Your task to perform on an android device: open sync settings in chrome Image 0: 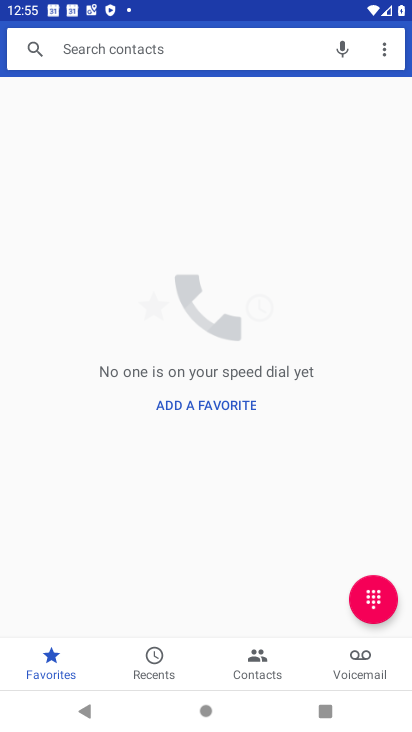
Step 0: press home button
Your task to perform on an android device: open sync settings in chrome Image 1: 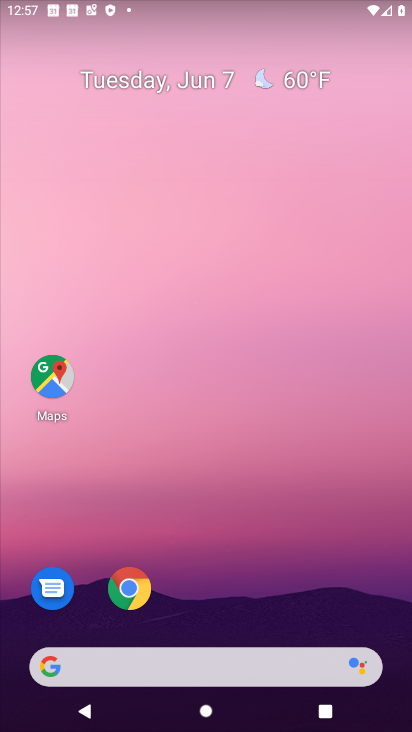
Step 1: click (123, 577)
Your task to perform on an android device: open sync settings in chrome Image 2: 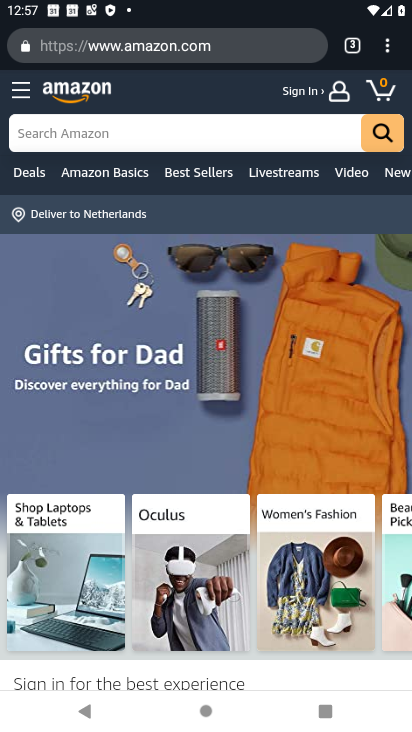
Step 2: click (387, 40)
Your task to perform on an android device: open sync settings in chrome Image 3: 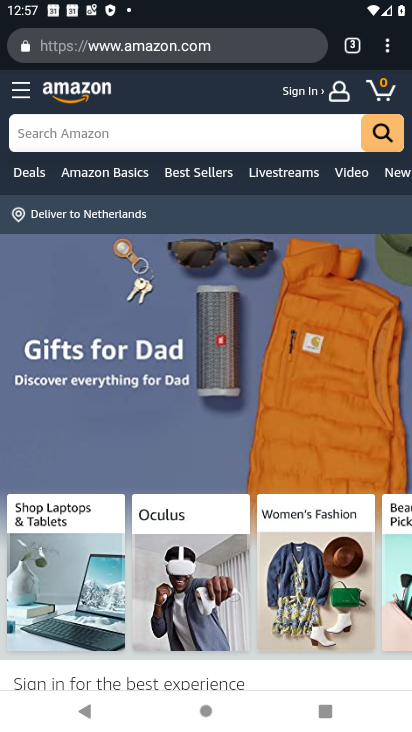
Step 3: click (382, 43)
Your task to perform on an android device: open sync settings in chrome Image 4: 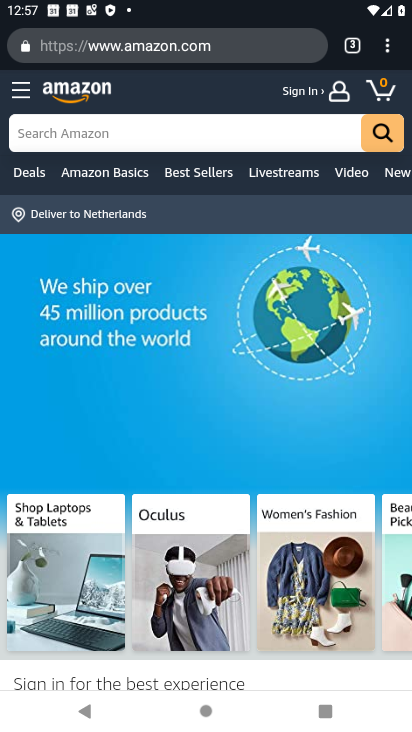
Step 4: click (391, 48)
Your task to perform on an android device: open sync settings in chrome Image 5: 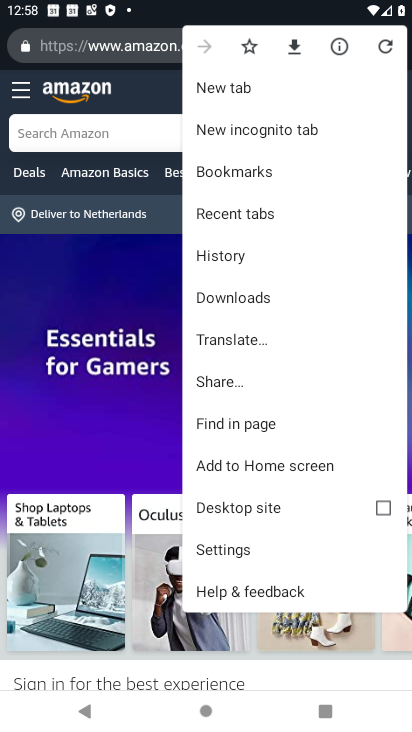
Step 5: click (241, 555)
Your task to perform on an android device: open sync settings in chrome Image 6: 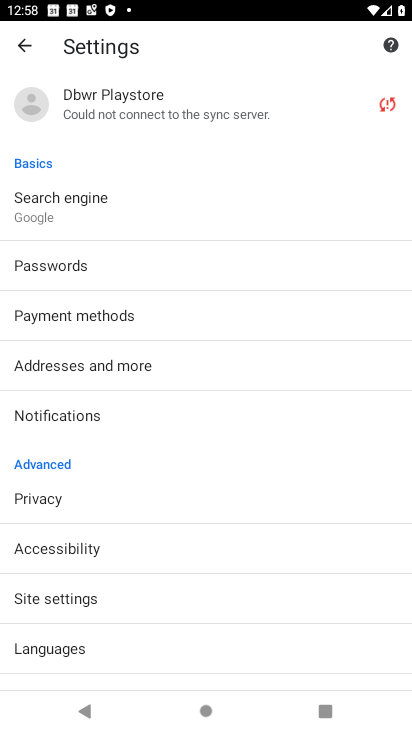
Step 6: click (209, 108)
Your task to perform on an android device: open sync settings in chrome Image 7: 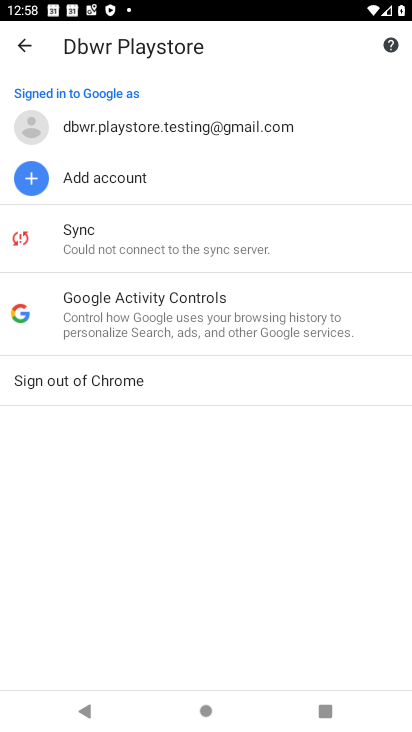
Step 7: click (227, 249)
Your task to perform on an android device: open sync settings in chrome Image 8: 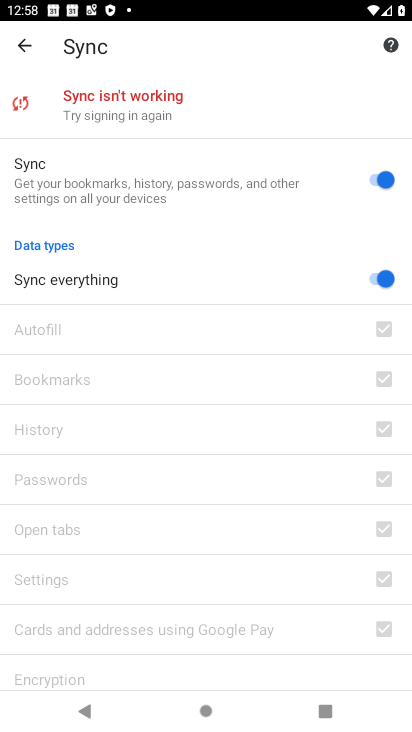
Step 8: task complete